Your task to perform on an android device: open wifi settings Image 0: 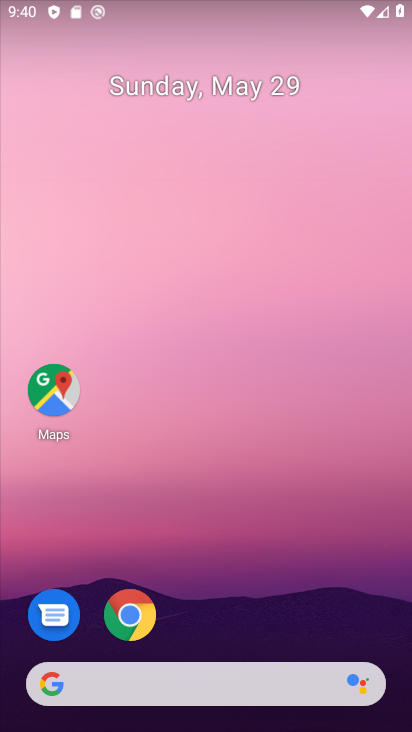
Step 0: drag from (207, 648) to (180, 11)
Your task to perform on an android device: open wifi settings Image 1: 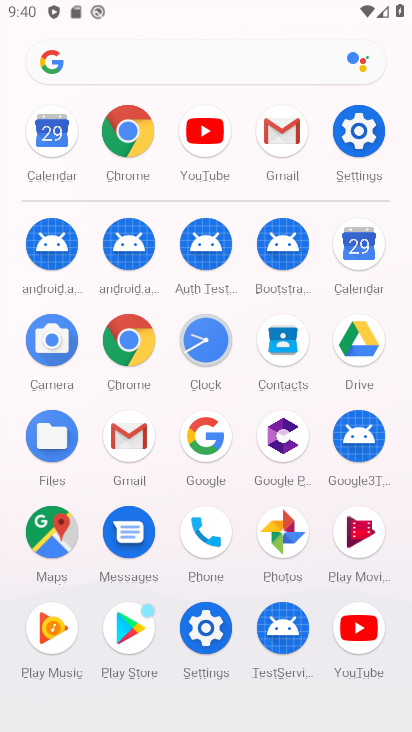
Step 1: click (358, 134)
Your task to perform on an android device: open wifi settings Image 2: 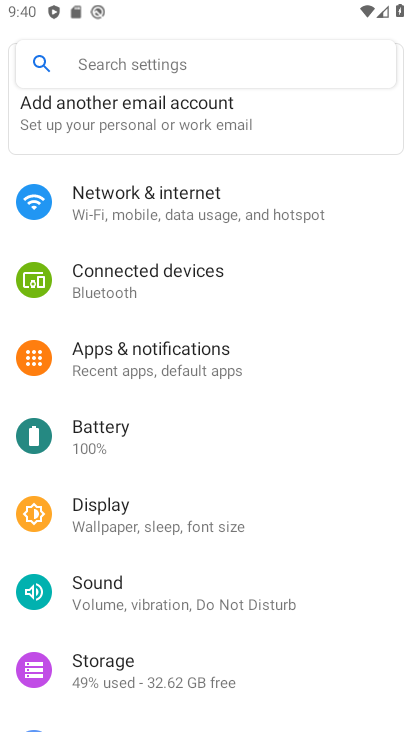
Step 2: click (141, 214)
Your task to perform on an android device: open wifi settings Image 3: 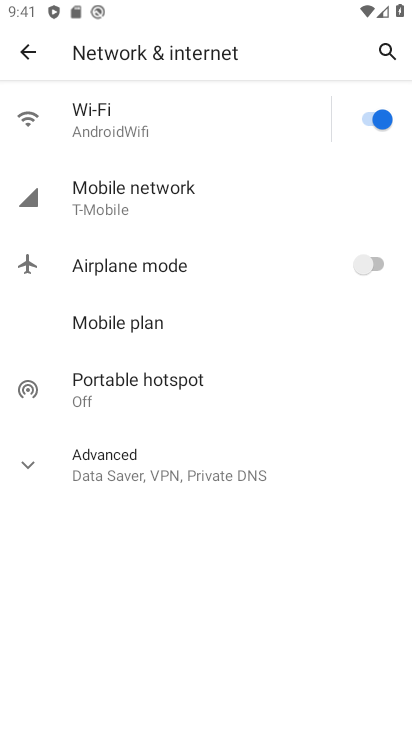
Step 3: click (98, 106)
Your task to perform on an android device: open wifi settings Image 4: 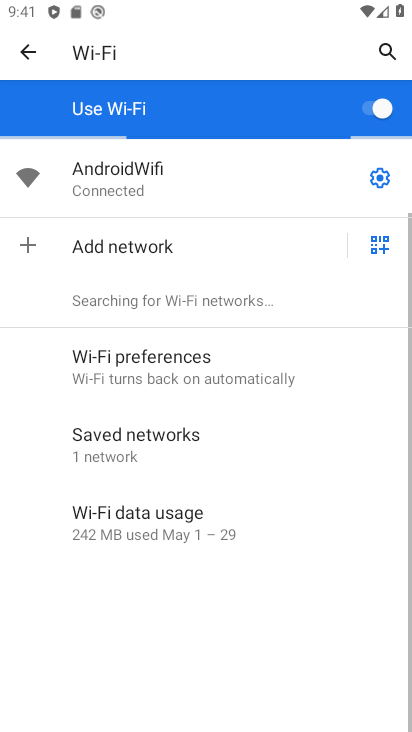
Step 4: task complete